Your task to perform on an android device: uninstall "NewsBreak: Local News & Alerts" Image 0: 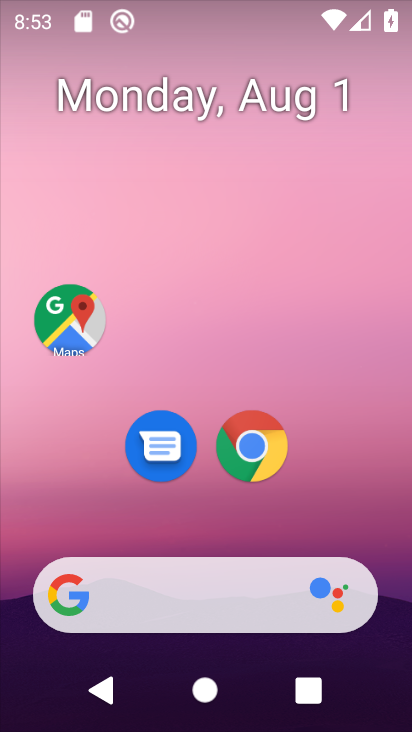
Step 0: drag from (197, 516) to (198, 0)
Your task to perform on an android device: uninstall "NewsBreak: Local News & Alerts" Image 1: 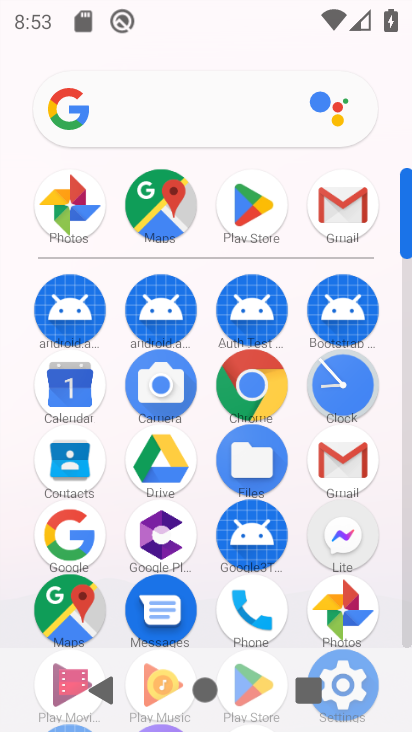
Step 1: click (258, 191)
Your task to perform on an android device: uninstall "NewsBreak: Local News & Alerts" Image 2: 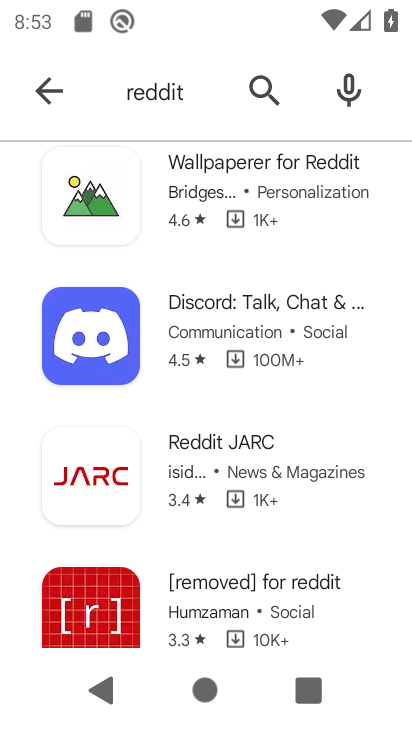
Step 2: click (276, 76)
Your task to perform on an android device: uninstall "NewsBreak: Local News & Alerts" Image 3: 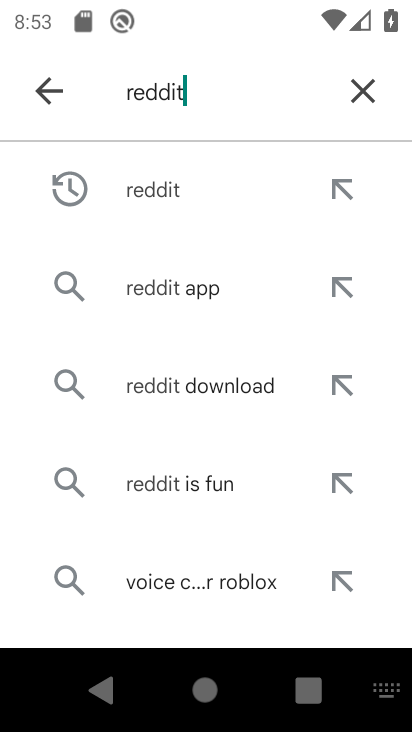
Step 3: click (366, 95)
Your task to perform on an android device: uninstall "NewsBreak: Local News & Alerts" Image 4: 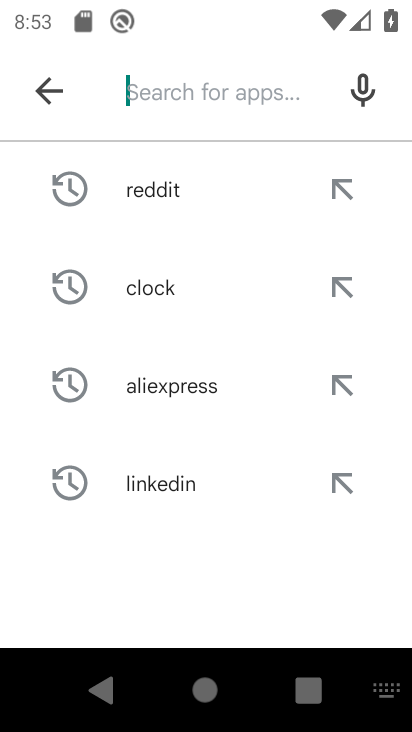
Step 4: type "ewsBreak: Local News & Alerts"
Your task to perform on an android device: uninstall "NewsBreak: Local News & Alerts" Image 5: 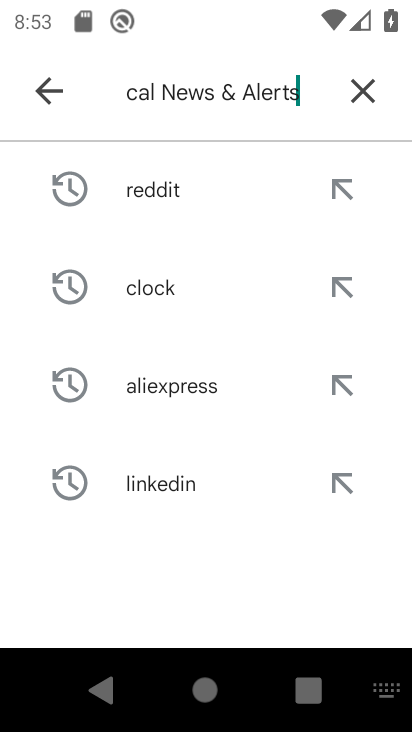
Step 5: type ""
Your task to perform on an android device: uninstall "NewsBreak: Local News & Alerts" Image 6: 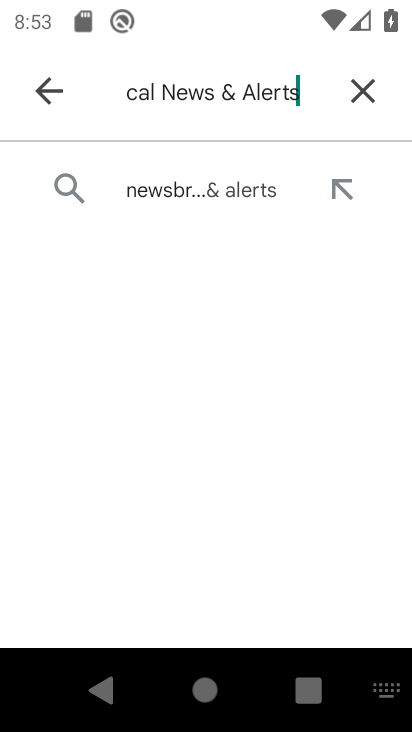
Step 6: click (216, 197)
Your task to perform on an android device: uninstall "NewsBreak: Local News & Alerts" Image 7: 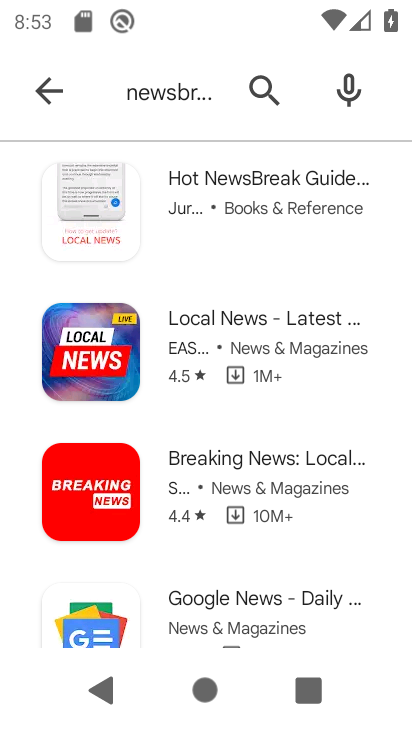
Step 7: task complete